Your task to perform on an android device: Find coffee shops on Maps Image 0: 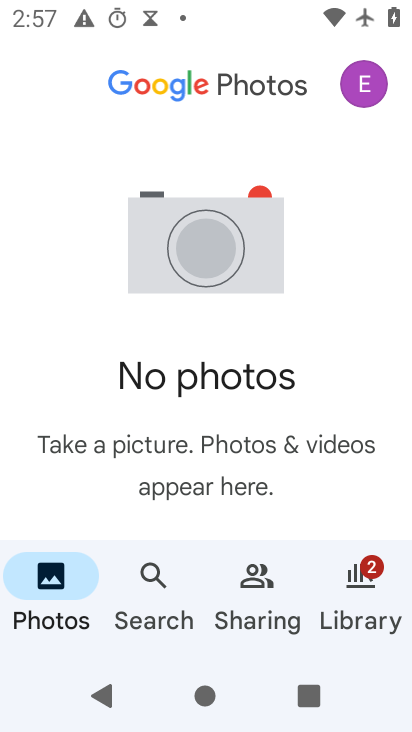
Step 0: press home button
Your task to perform on an android device: Find coffee shops on Maps Image 1: 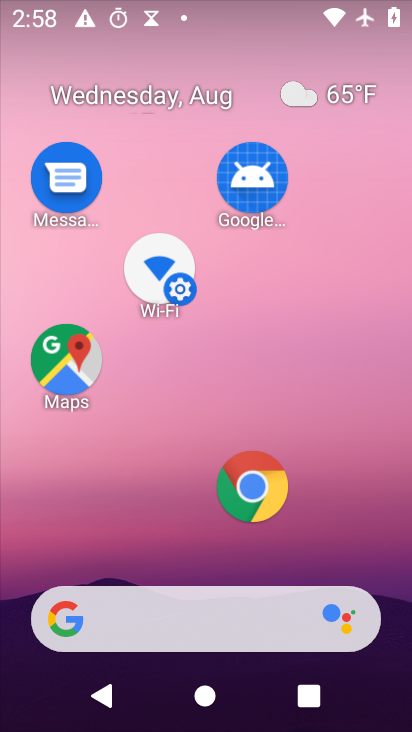
Step 1: click (48, 351)
Your task to perform on an android device: Find coffee shops on Maps Image 2: 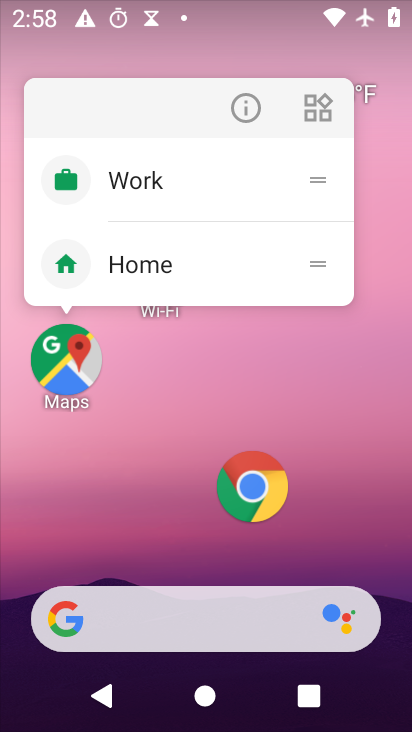
Step 2: click (48, 351)
Your task to perform on an android device: Find coffee shops on Maps Image 3: 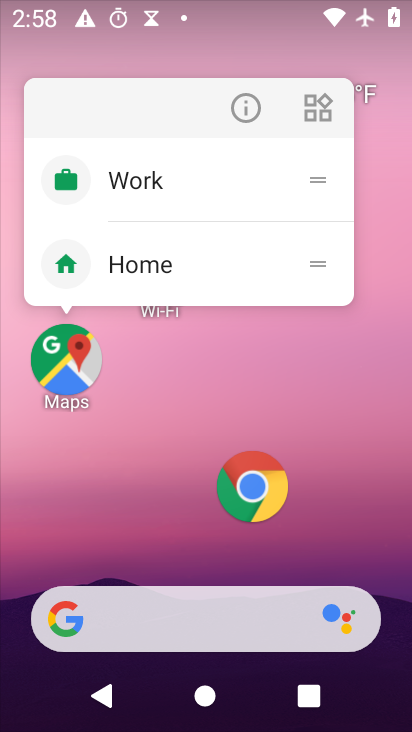
Step 3: click (67, 382)
Your task to perform on an android device: Find coffee shops on Maps Image 4: 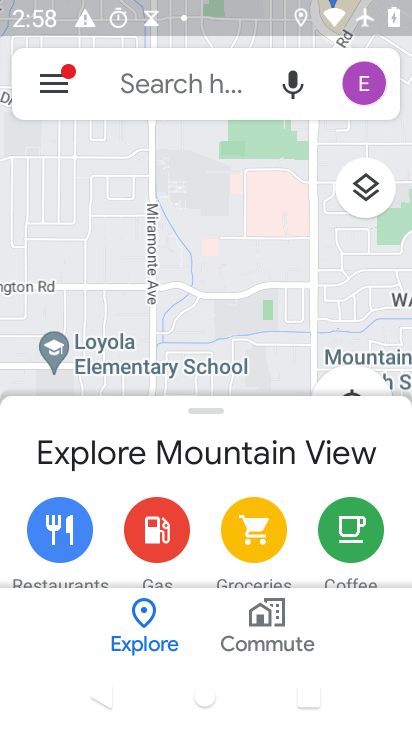
Step 4: click (176, 91)
Your task to perform on an android device: Find coffee shops on Maps Image 5: 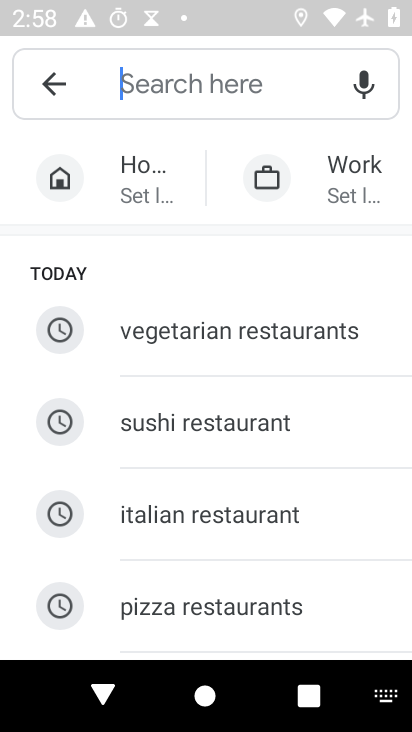
Step 5: drag from (377, 478) to (361, 163)
Your task to perform on an android device: Find coffee shops on Maps Image 6: 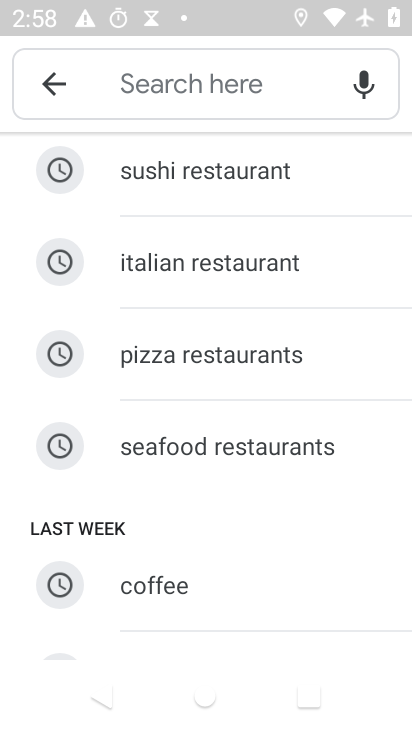
Step 6: drag from (318, 447) to (330, 198)
Your task to perform on an android device: Find coffee shops on Maps Image 7: 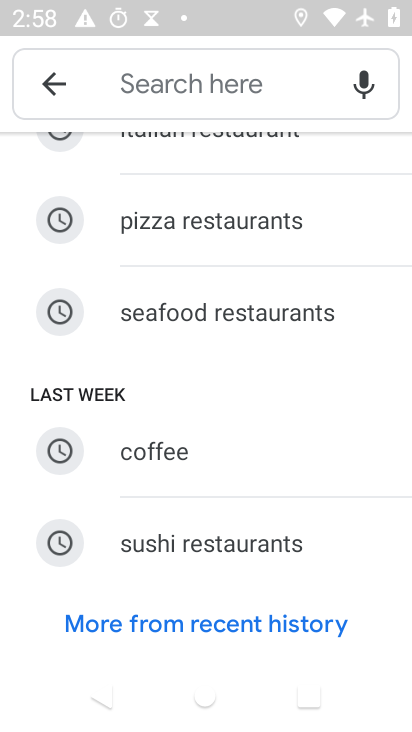
Step 7: type " coffee shops"
Your task to perform on an android device: Find coffee shops on Maps Image 8: 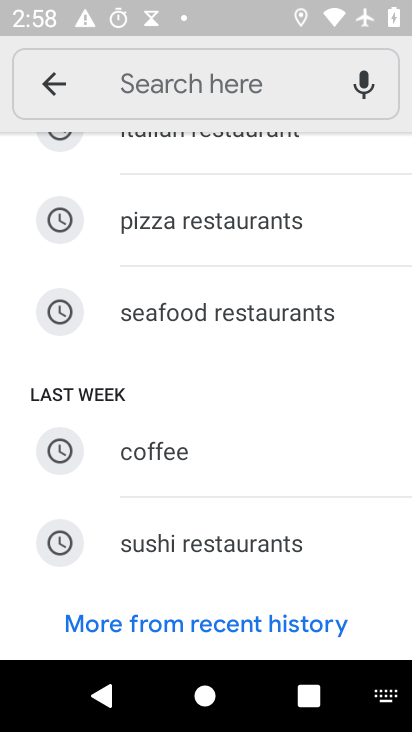
Step 8: press enter
Your task to perform on an android device: Find coffee shops on Maps Image 9: 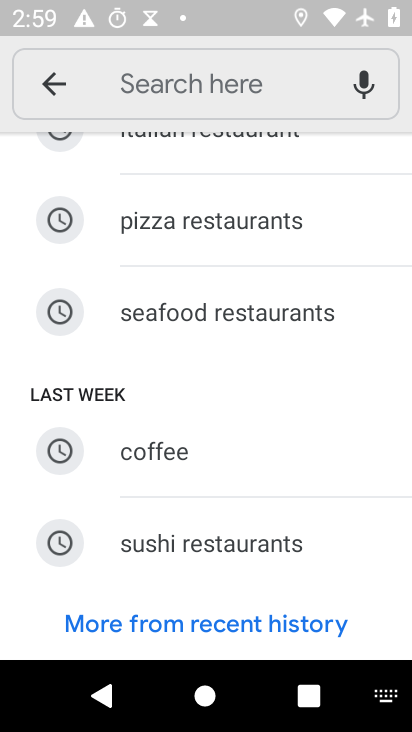
Step 9: type "coffee shops"
Your task to perform on an android device: Find coffee shops on Maps Image 10: 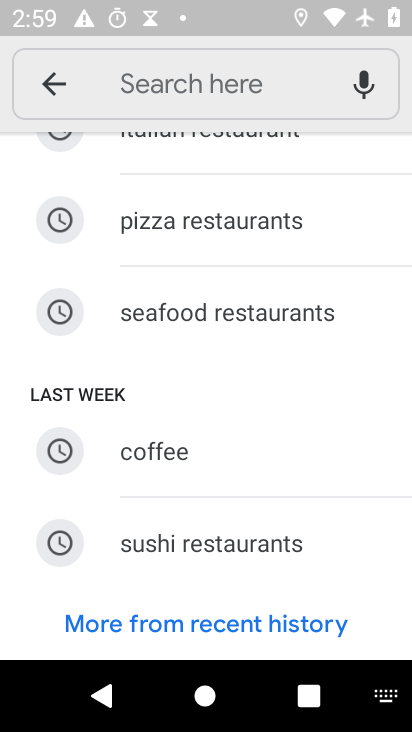
Step 10: click (183, 97)
Your task to perform on an android device: Find coffee shops on Maps Image 11: 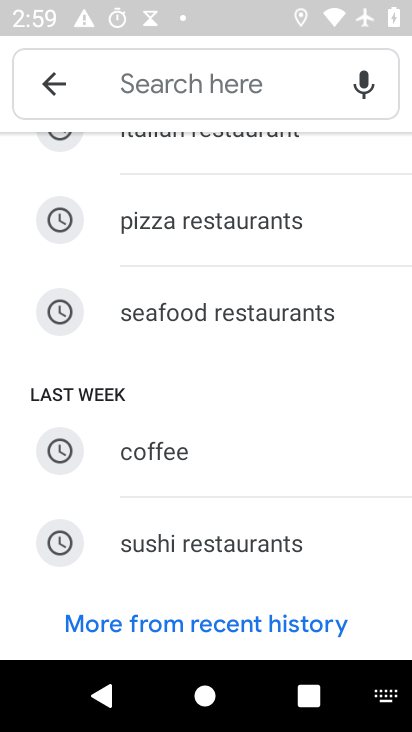
Step 11: click (195, 84)
Your task to perform on an android device: Find coffee shops on Maps Image 12: 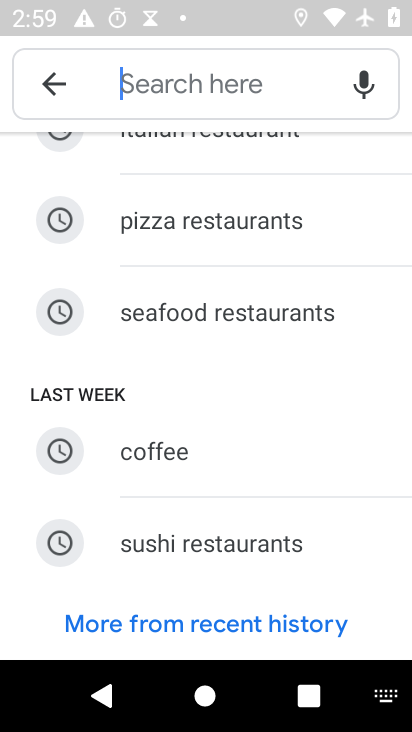
Step 12: press enter
Your task to perform on an android device: Find coffee shops on Maps Image 13: 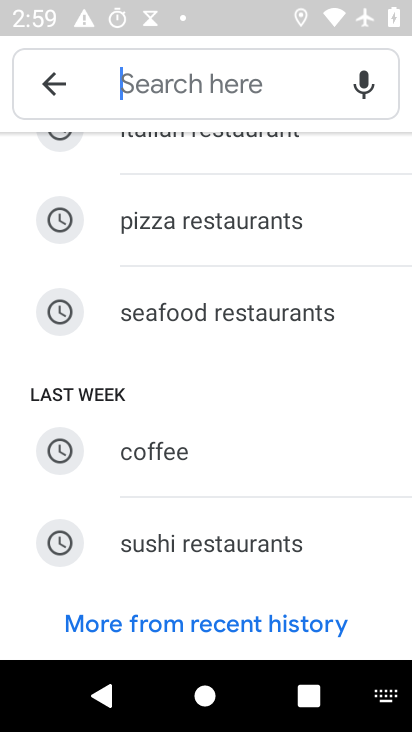
Step 13: type "coffee shops"
Your task to perform on an android device: Find coffee shops on Maps Image 14: 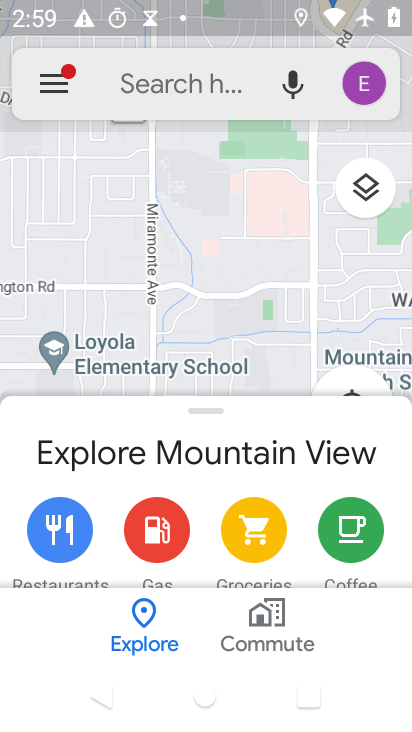
Step 14: task complete